Your task to perform on an android device: open wifi settings Image 0: 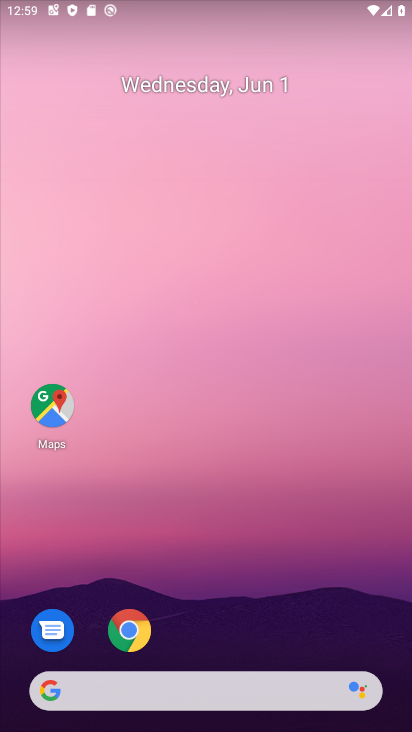
Step 0: drag from (218, 283) to (243, 6)
Your task to perform on an android device: open wifi settings Image 1: 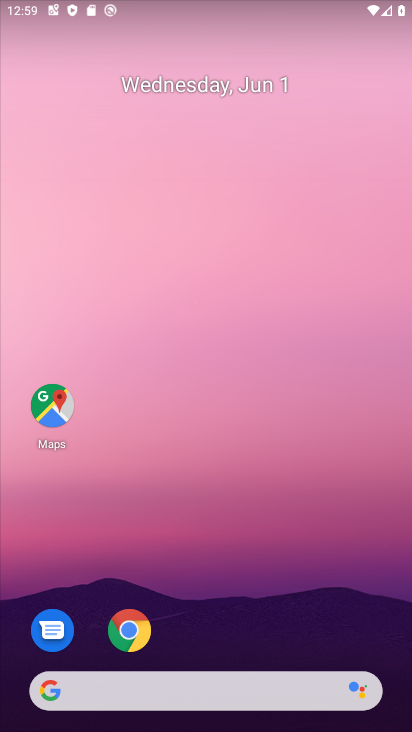
Step 1: drag from (249, 643) to (219, 324)
Your task to perform on an android device: open wifi settings Image 2: 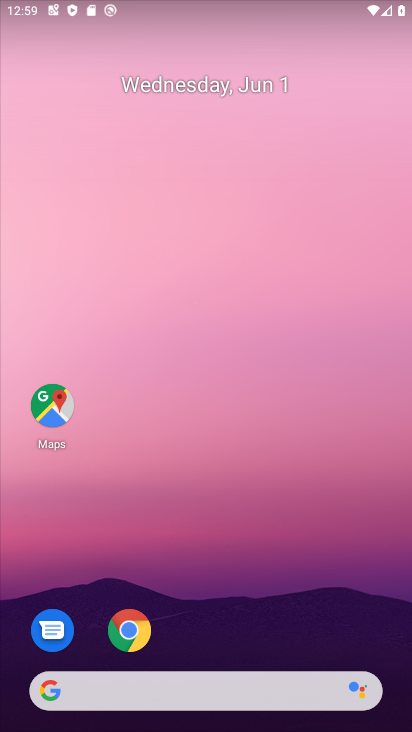
Step 2: drag from (266, 633) to (257, 26)
Your task to perform on an android device: open wifi settings Image 3: 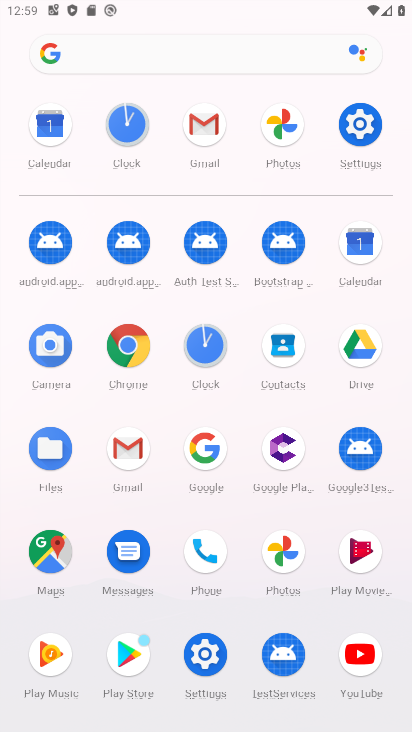
Step 3: click (353, 135)
Your task to perform on an android device: open wifi settings Image 4: 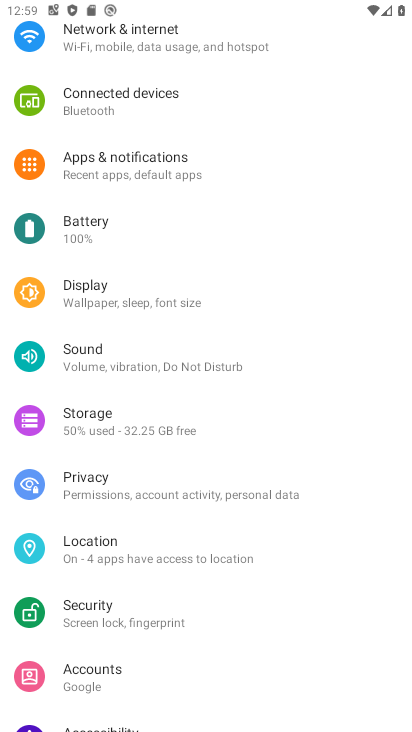
Step 4: click (125, 39)
Your task to perform on an android device: open wifi settings Image 5: 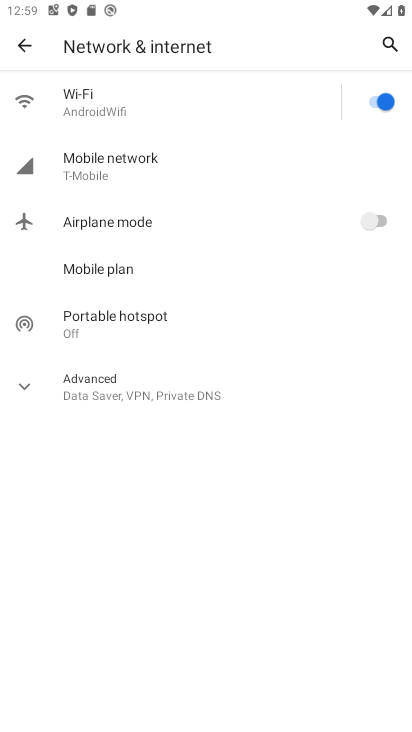
Step 5: click (79, 108)
Your task to perform on an android device: open wifi settings Image 6: 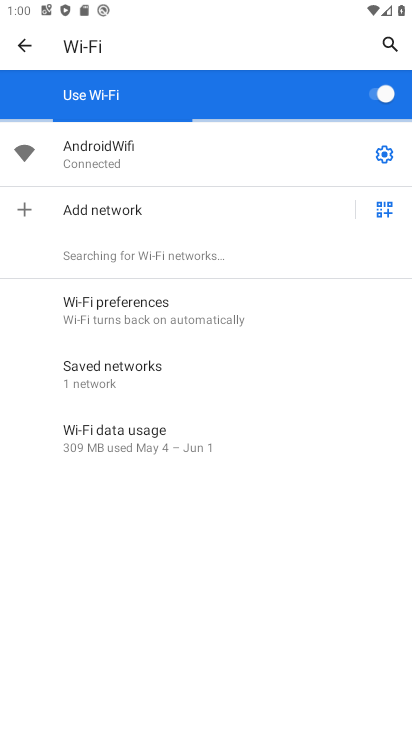
Step 6: task complete